Your task to perform on an android device: Clear the cart on walmart.com. Image 0: 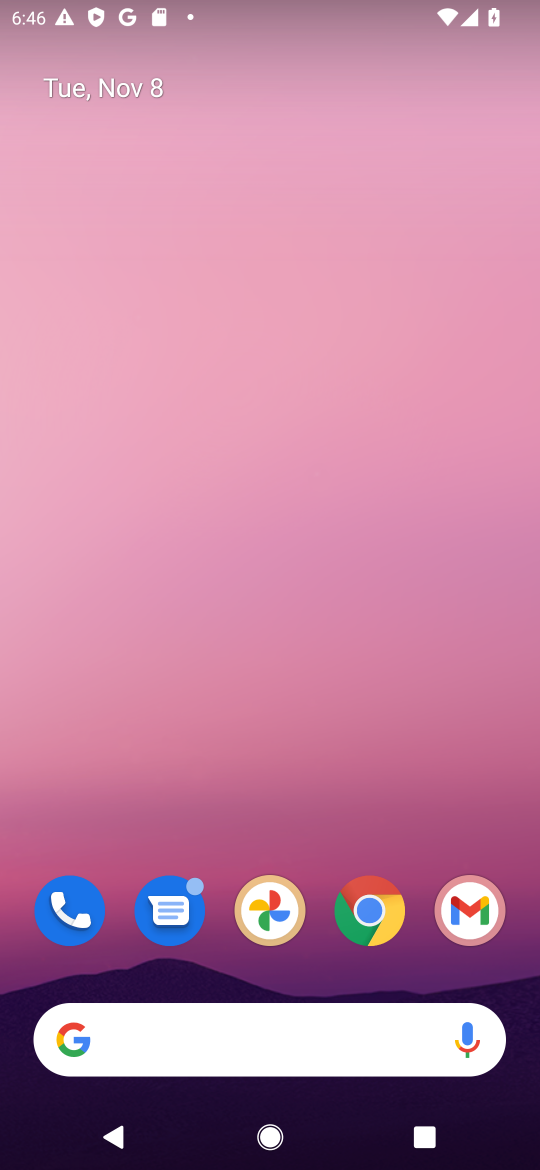
Step 0: click (372, 916)
Your task to perform on an android device: Clear the cart on walmart.com. Image 1: 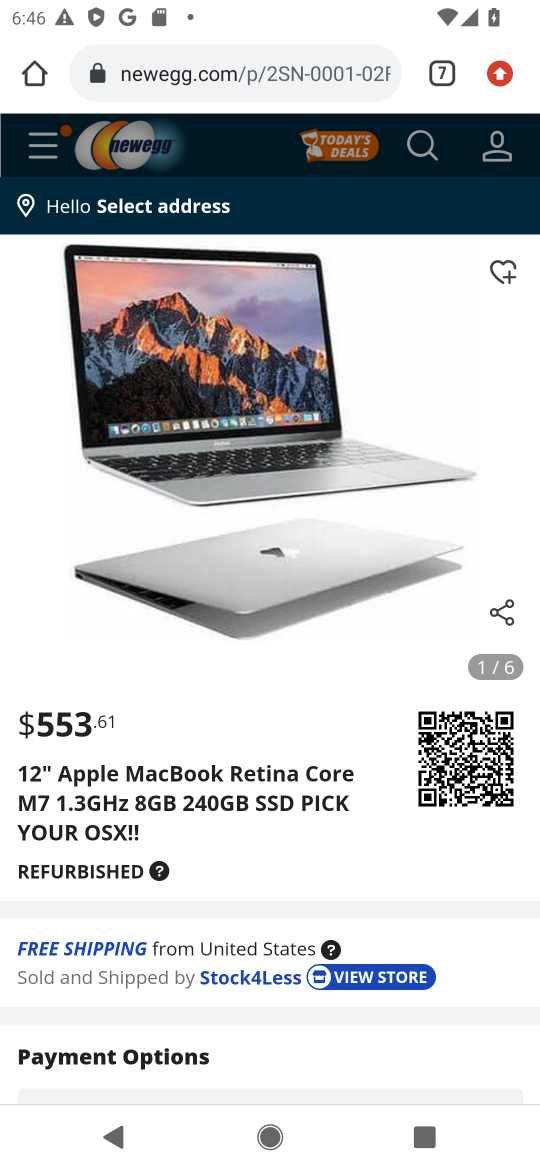
Step 1: click (442, 84)
Your task to perform on an android device: Clear the cart on walmart.com. Image 2: 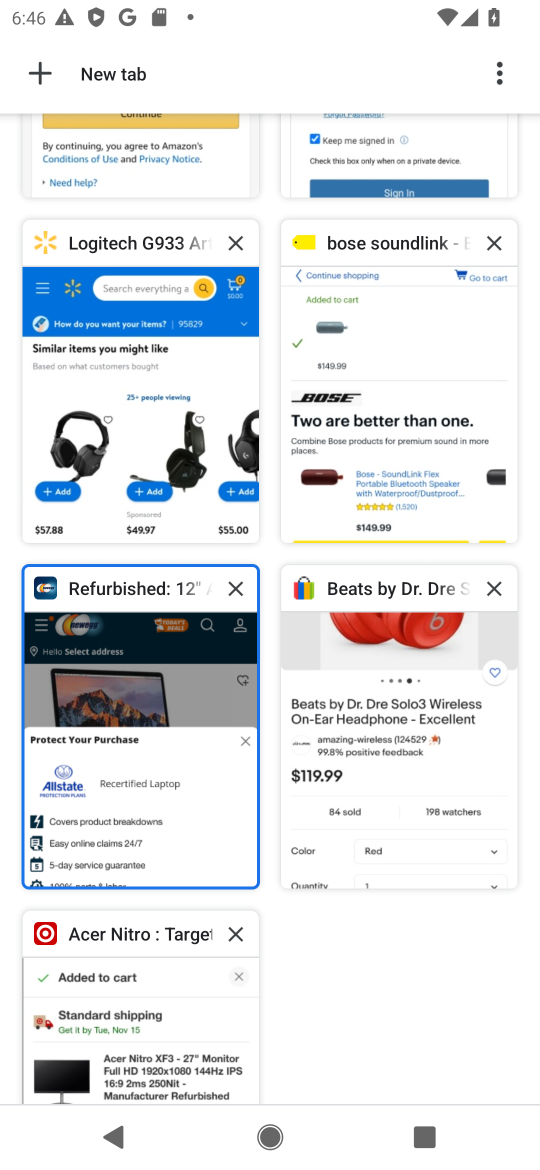
Step 2: click (124, 360)
Your task to perform on an android device: Clear the cart on walmart.com. Image 3: 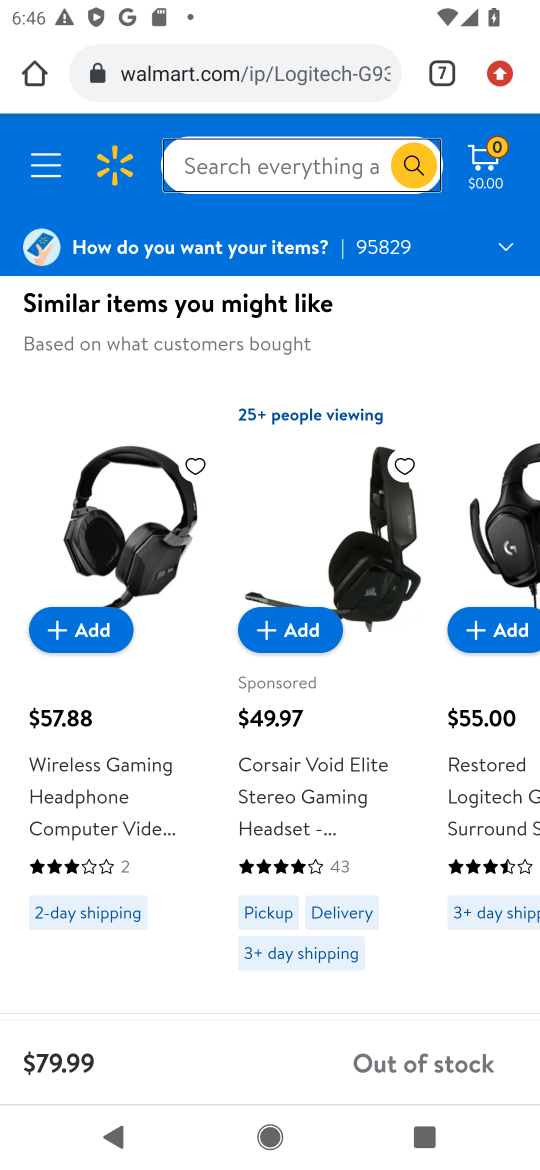
Step 3: task complete